Your task to perform on an android device: toggle javascript in the chrome app Image 0: 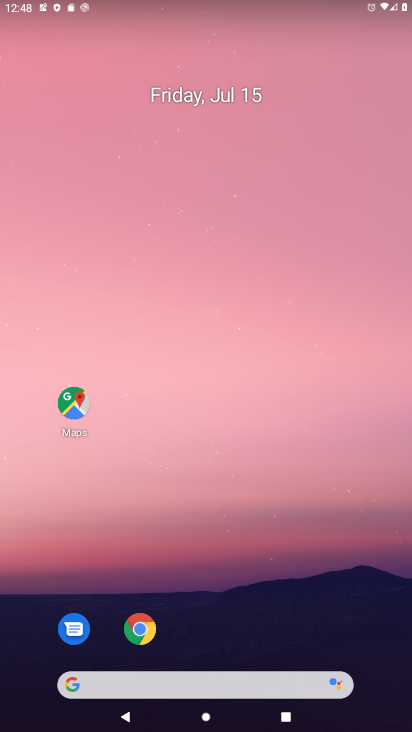
Step 0: press home button
Your task to perform on an android device: toggle javascript in the chrome app Image 1: 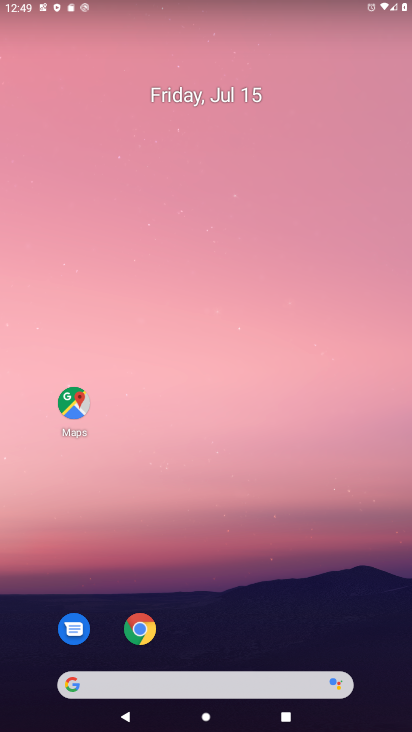
Step 1: drag from (314, 641) to (367, 50)
Your task to perform on an android device: toggle javascript in the chrome app Image 2: 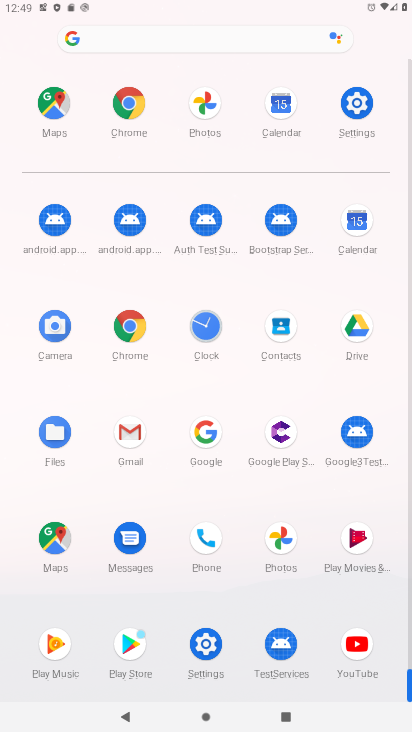
Step 2: click (125, 120)
Your task to perform on an android device: toggle javascript in the chrome app Image 3: 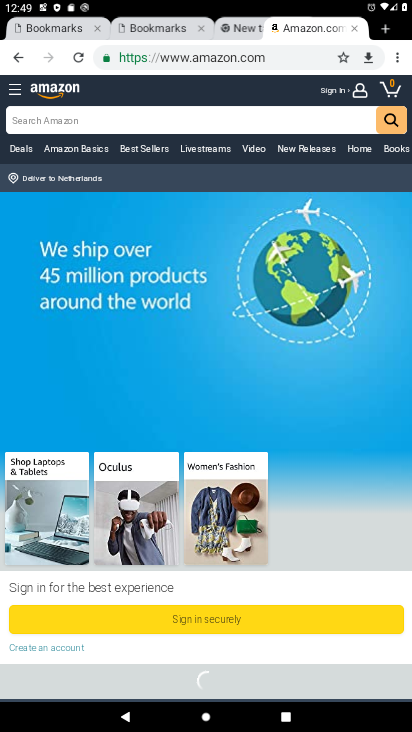
Step 3: drag from (403, 60) to (290, 389)
Your task to perform on an android device: toggle javascript in the chrome app Image 4: 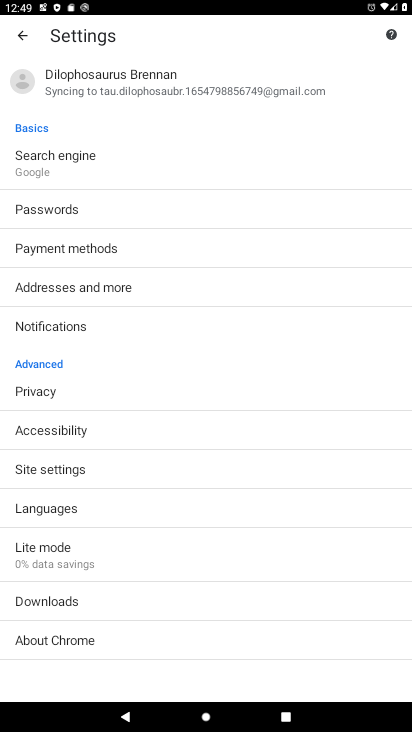
Step 4: click (37, 475)
Your task to perform on an android device: toggle javascript in the chrome app Image 5: 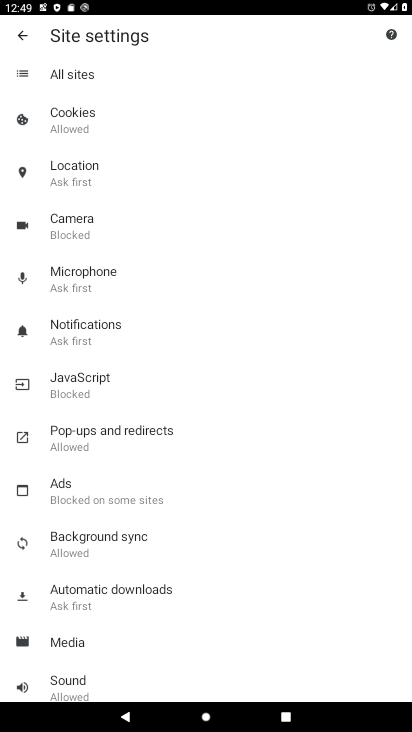
Step 5: click (95, 390)
Your task to perform on an android device: toggle javascript in the chrome app Image 6: 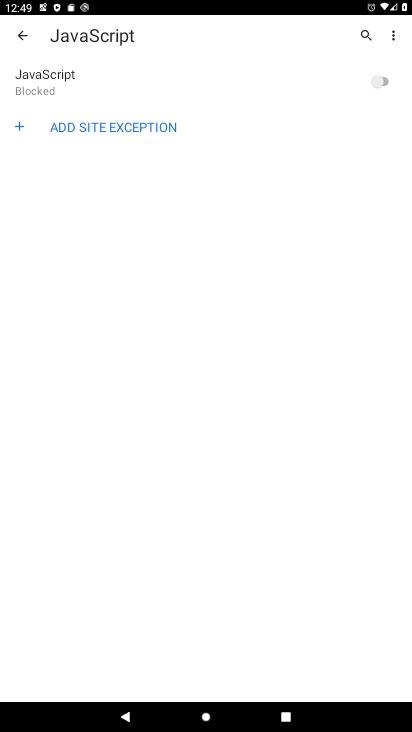
Step 6: click (383, 80)
Your task to perform on an android device: toggle javascript in the chrome app Image 7: 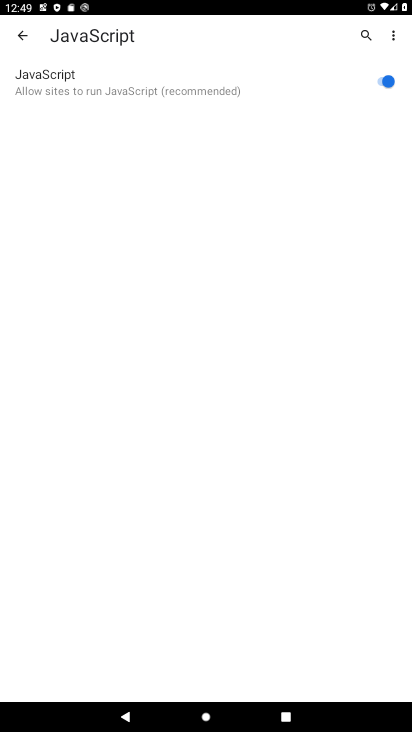
Step 7: task complete